Your task to perform on an android device: open app "Skype" (install if not already installed) and go to login screen Image 0: 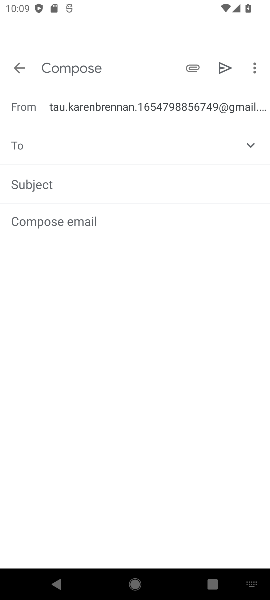
Step 0: press home button
Your task to perform on an android device: open app "Skype" (install if not already installed) and go to login screen Image 1: 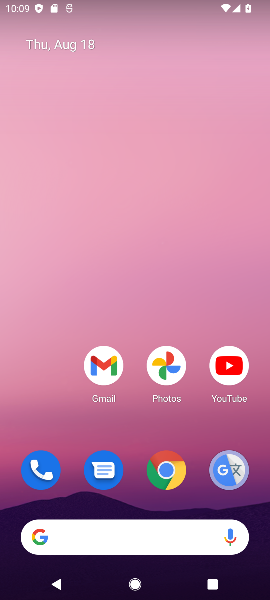
Step 1: drag from (148, 542) to (119, 70)
Your task to perform on an android device: open app "Skype" (install if not already installed) and go to login screen Image 2: 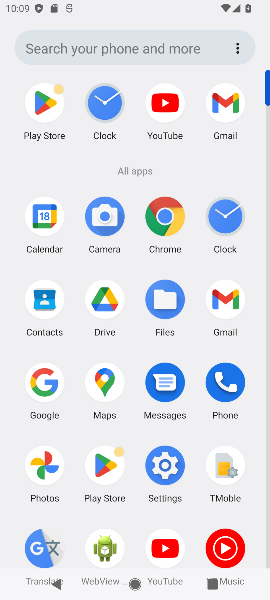
Step 2: click (54, 104)
Your task to perform on an android device: open app "Skype" (install if not already installed) and go to login screen Image 3: 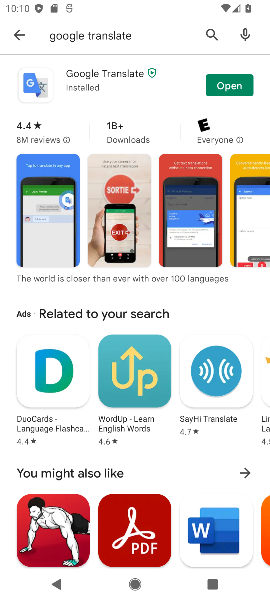
Step 3: click (206, 35)
Your task to perform on an android device: open app "Skype" (install if not already installed) and go to login screen Image 4: 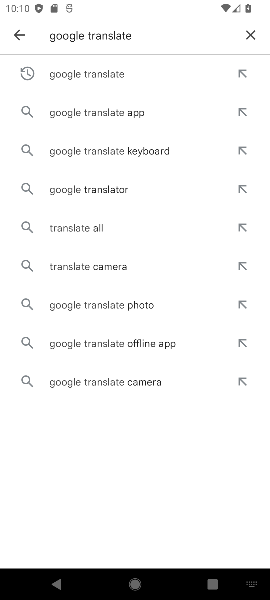
Step 4: click (254, 32)
Your task to perform on an android device: open app "Skype" (install if not already installed) and go to login screen Image 5: 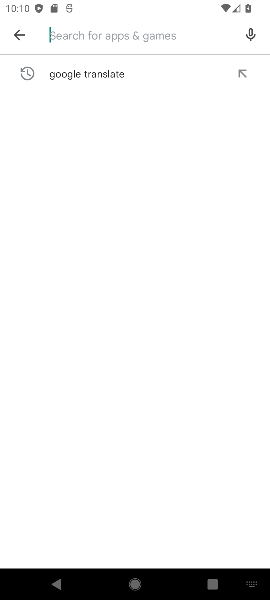
Step 5: type "skype"
Your task to perform on an android device: open app "Skype" (install if not already installed) and go to login screen Image 6: 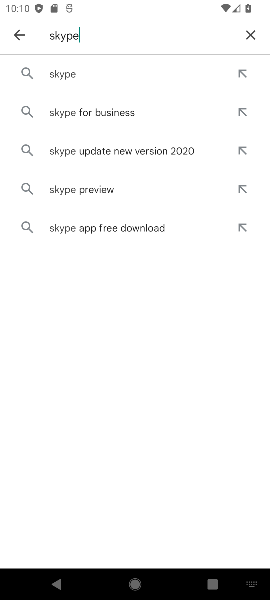
Step 6: click (58, 72)
Your task to perform on an android device: open app "Skype" (install if not already installed) and go to login screen Image 7: 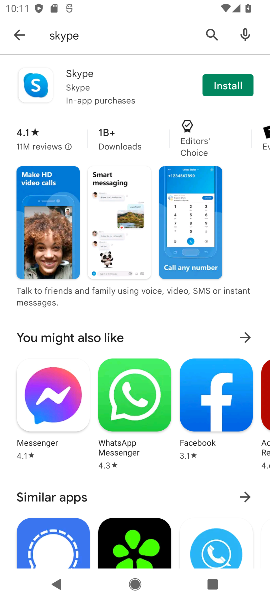
Step 7: click (229, 89)
Your task to perform on an android device: open app "Skype" (install if not already installed) and go to login screen Image 8: 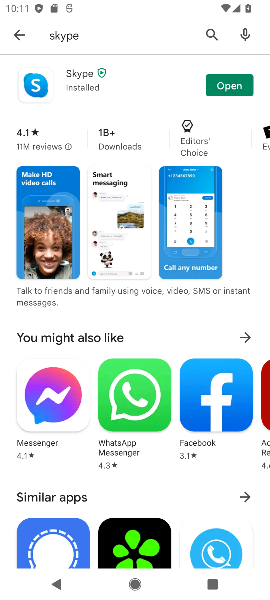
Step 8: click (227, 87)
Your task to perform on an android device: open app "Skype" (install if not already installed) and go to login screen Image 9: 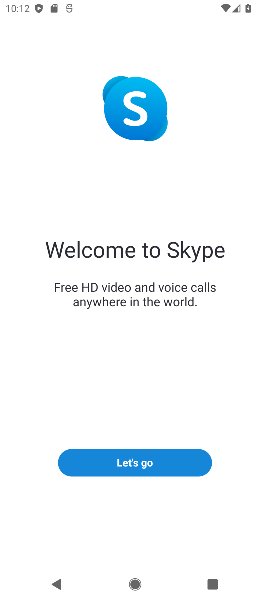
Step 9: click (143, 465)
Your task to perform on an android device: open app "Skype" (install if not already installed) and go to login screen Image 10: 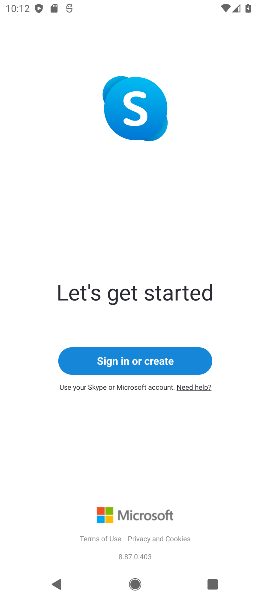
Step 10: click (152, 360)
Your task to perform on an android device: open app "Skype" (install if not already installed) and go to login screen Image 11: 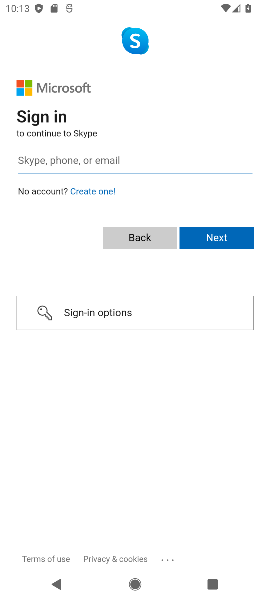
Step 11: task complete